Your task to perform on an android device: Go to network settings Image 0: 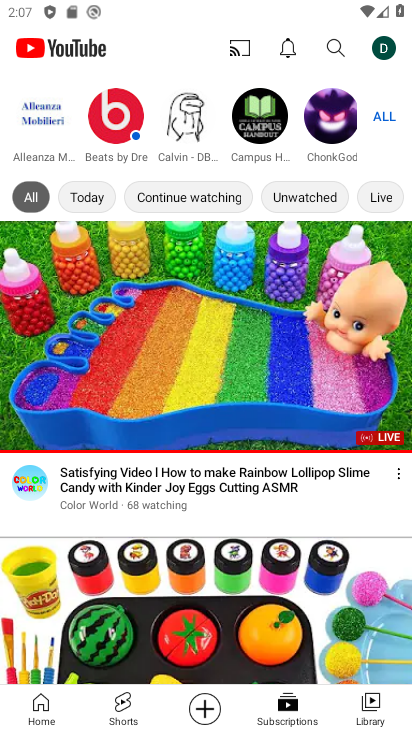
Step 0: press home button
Your task to perform on an android device: Go to network settings Image 1: 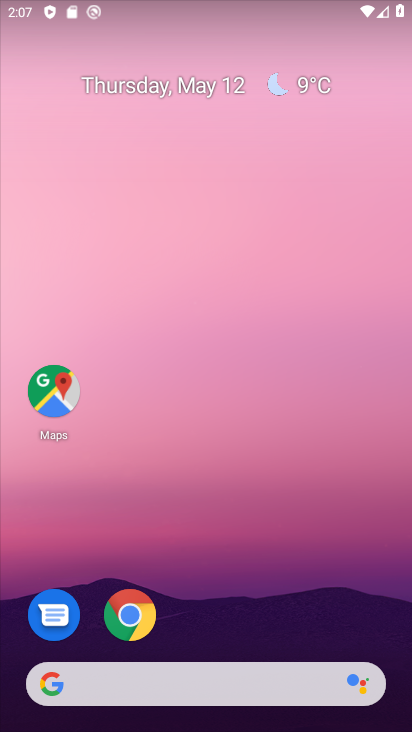
Step 1: drag from (152, 671) to (144, 114)
Your task to perform on an android device: Go to network settings Image 2: 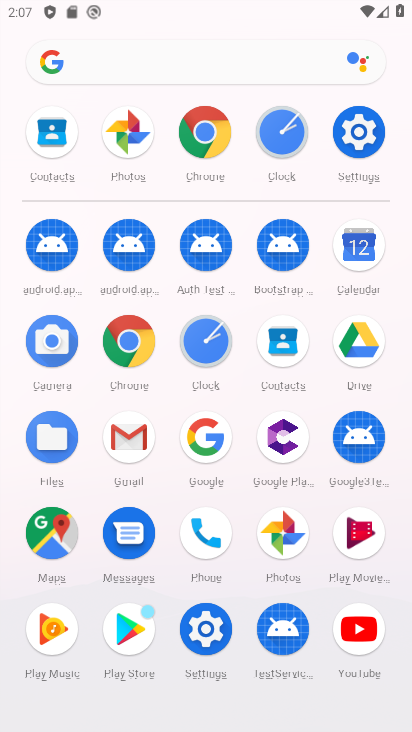
Step 2: click (347, 149)
Your task to perform on an android device: Go to network settings Image 3: 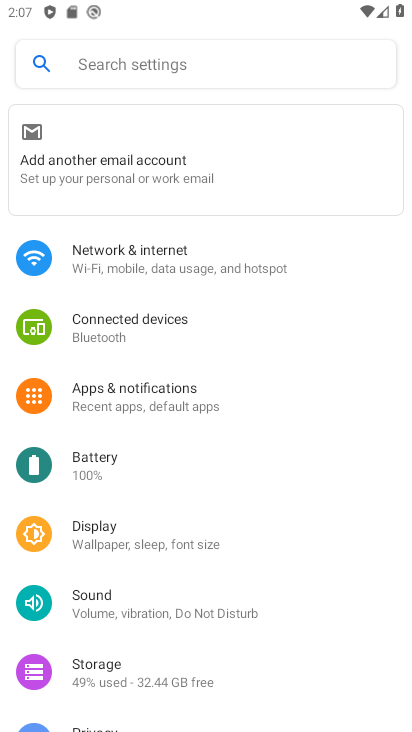
Step 3: click (114, 248)
Your task to perform on an android device: Go to network settings Image 4: 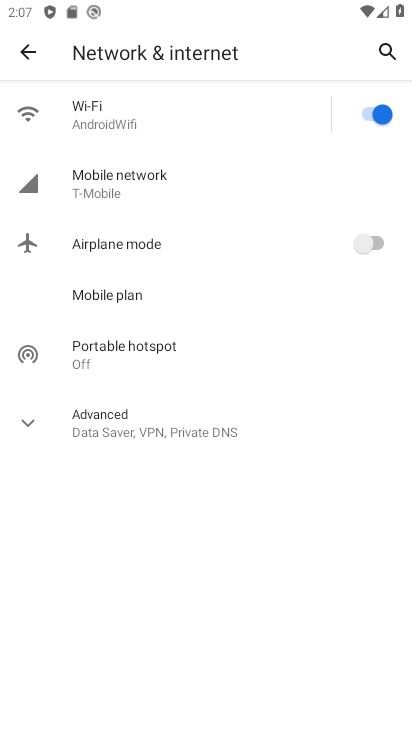
Step 4: task complete